Your task to perform on an android device: What is the speed of a bicycle? Image 0: 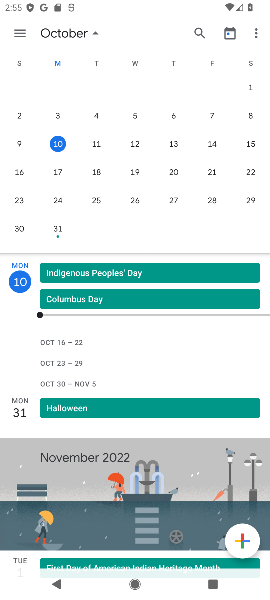
Step 0: press home button
Your task to perform on an android device: What is the speed of a bicycle? Image 1: 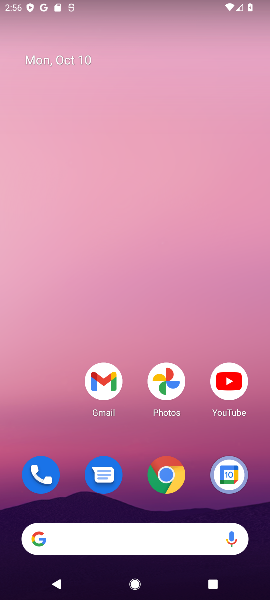
Step 1: drag from (130, 330) to (130, 66)
Your task to perform on an android device: What is the speed of a bicycle? Image 2: 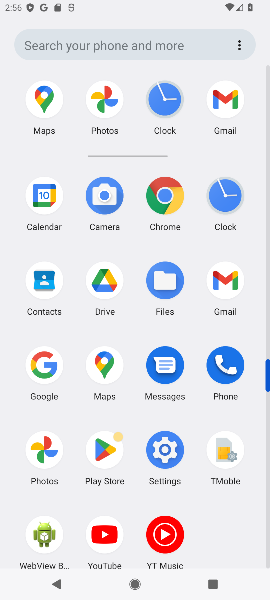
Step 2: click (47, 365)
Your task to perform on an android device: What is the speed of a bicycle? Image 3: 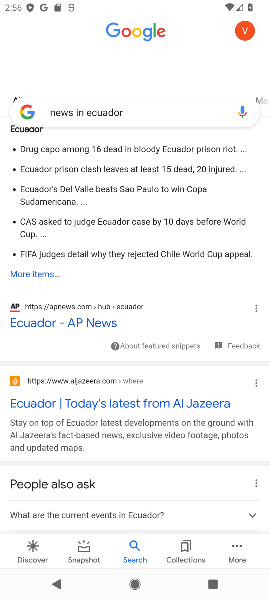
Step 3: click (172, 117)
Your task to perform on an android device: What is the speed of a bicycle? Image 4: 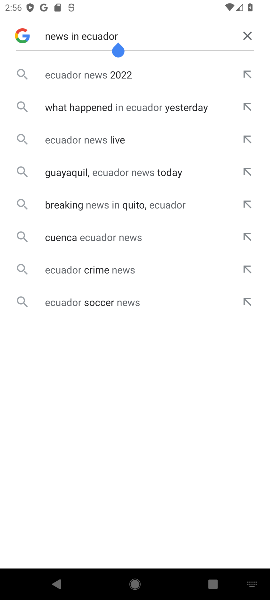
Step 4: click (244, 40)
Your task to perform on an android device: What is the speed of a bicycle? Image 5: 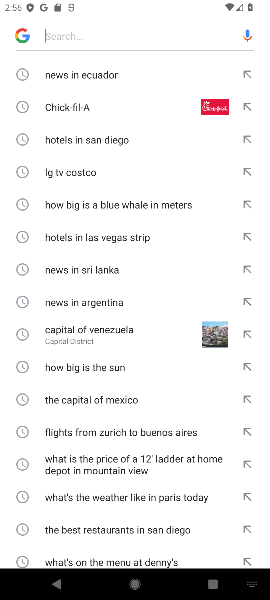
Step 5: click (244, 40)
Your task to perform on an android device: What is the speed of a bicycle? Image 6: 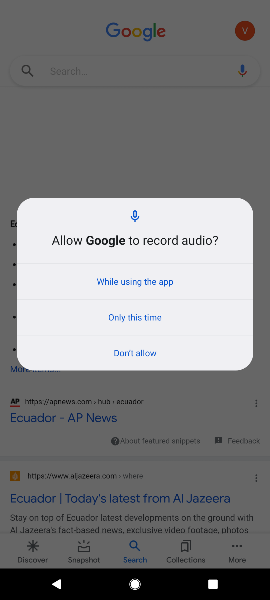
Step 6: click (200, 285)
Your task to perform on an android device: What is the speed of a bicycle? Image 7: 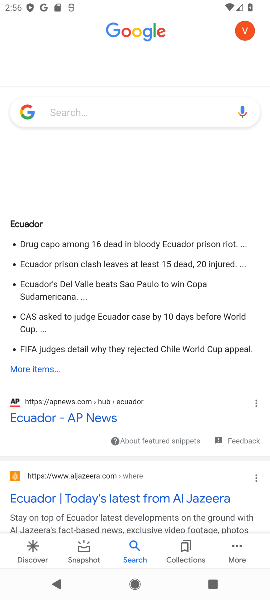
Step 7: click (151, 110)
Your task to perform on an android device: What is the speed of a bicycle? Image 8: 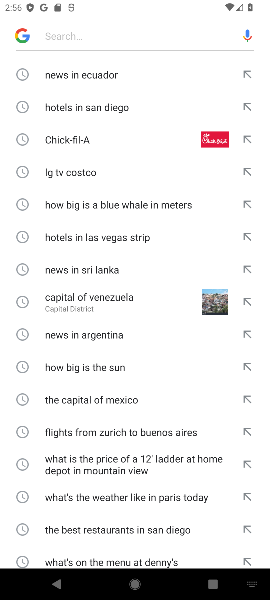
Step 8: type "What is the speed of a bicycle?"
Your task to perform on an android device: What is the speed of a bicycle? Image 9: 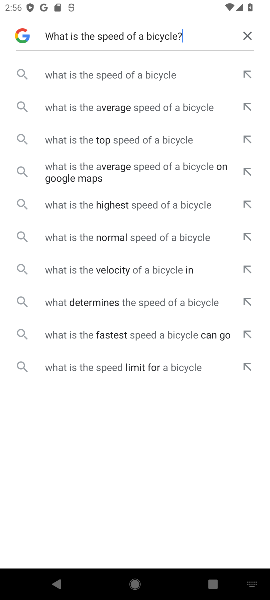
Step 9: click (168, 77)
Your task to perform on an android device: What is the speed of a bicycle? Image 10: 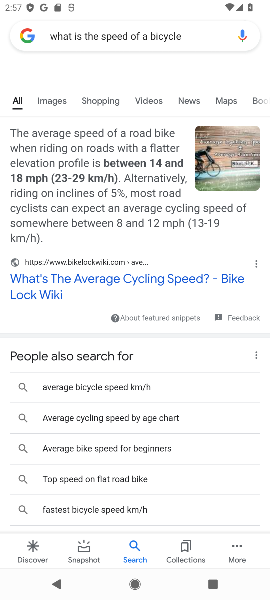
Step 10: task complete